Your task to perform on an android device: Search for "rayovac triple a" on walmart, select the first entry, and add it to the cart. Image 0: 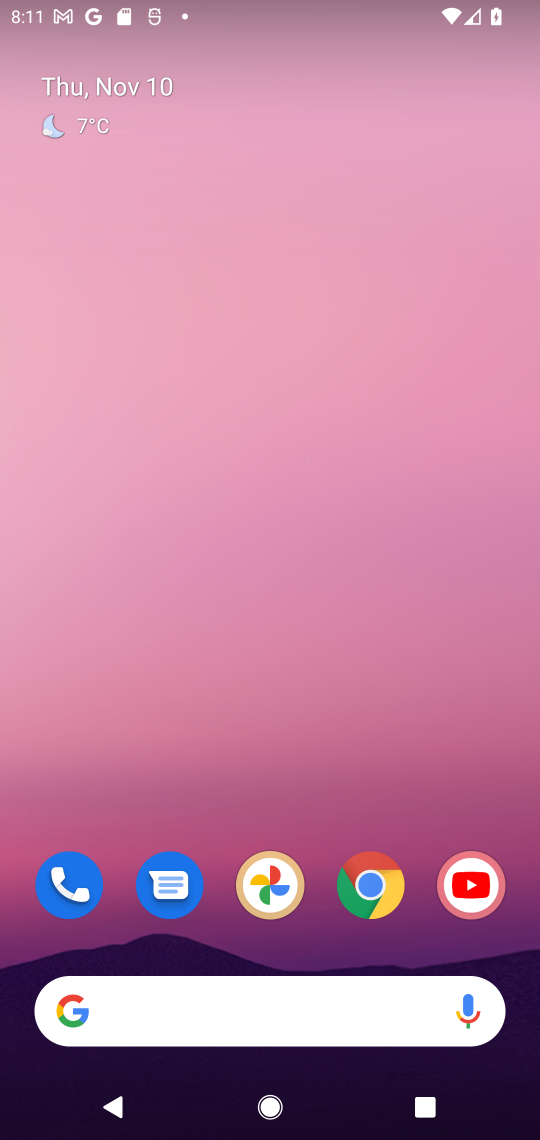
Step 0: click (386, 882)
Your task to perform on an android device: Search for "rayovac triple a" on walmart, select the first entry, and add it to the cart. Image 1: 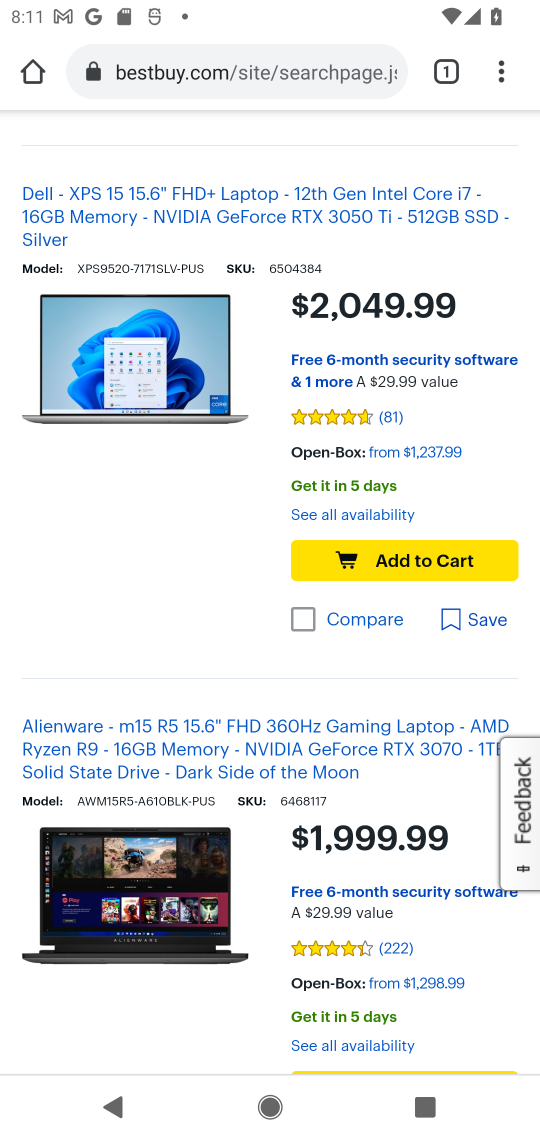
Step 1: click (257, 60)
Your task to perform on an android device: Search for "rayovac triple a" on walmart, select the first entry, and add it to the cart. Image 2: 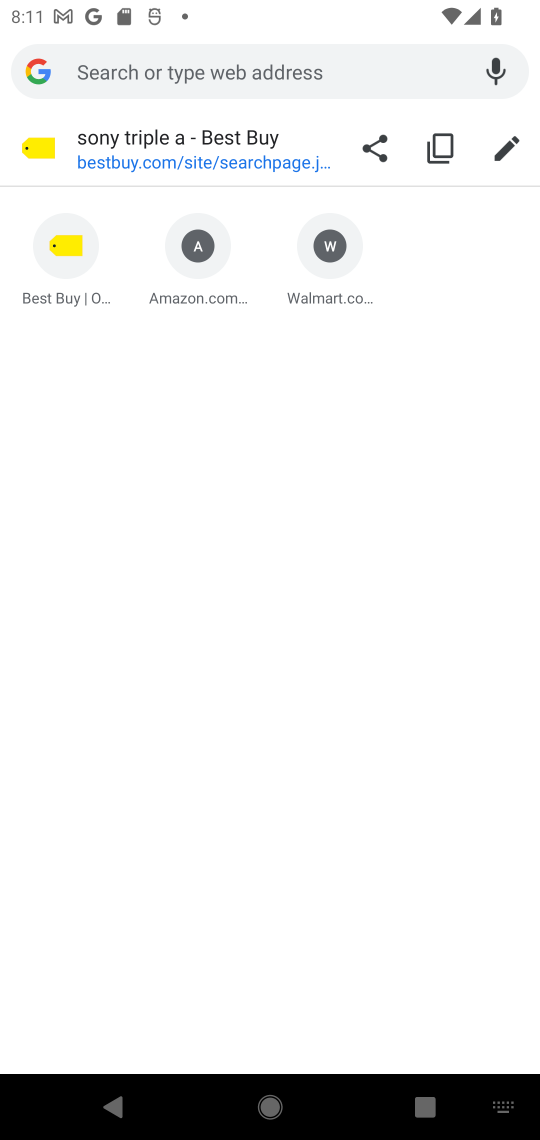
Step 2: type "walmart"
Your task to perform on an android device: Search for "rayovac triple a" on walmart, select the first entry, and add it to the cart. Image 3: 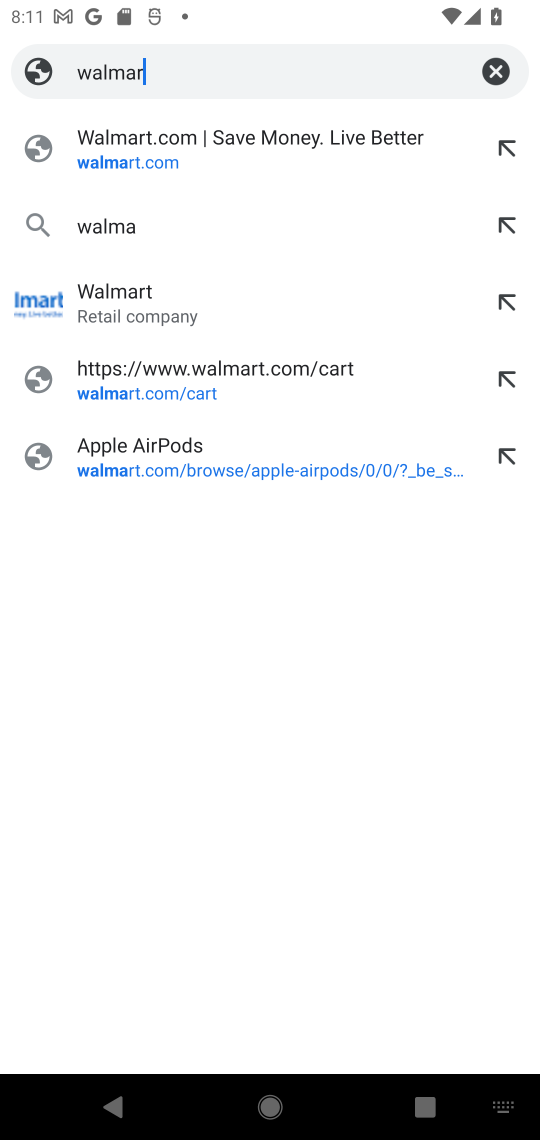
Step 3: press enter
Your task to perform on an android device: Search for "rayovac triple a" on walmart, select the first entry, and add it to the cart. Image 4: 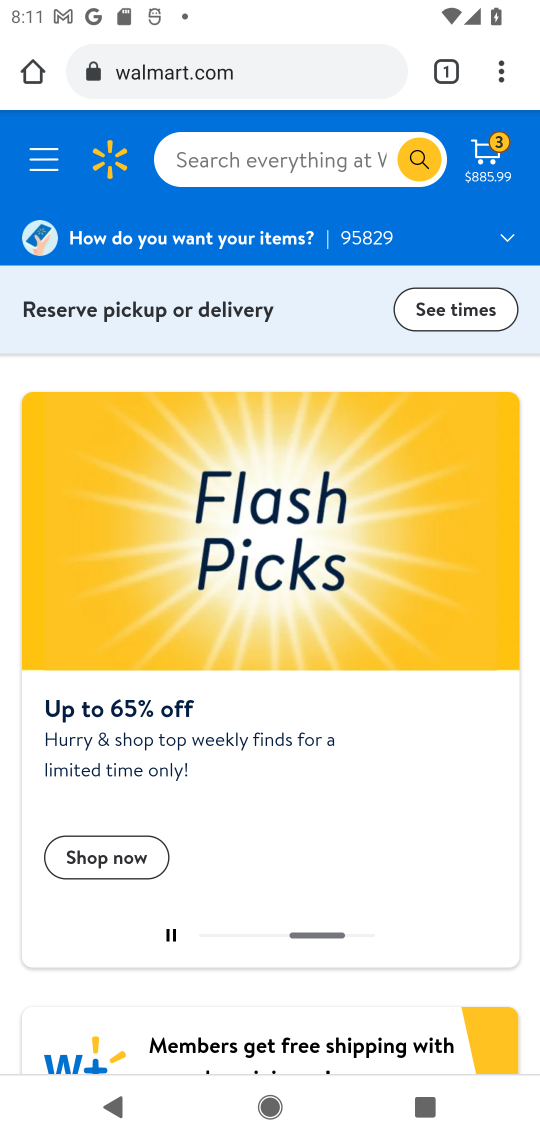
Step 4: click (267, 140)
Your task to perform on an android device: Search for "rayovac triple a" on walmart, select the first entry, and add it to the cart. Image 5: 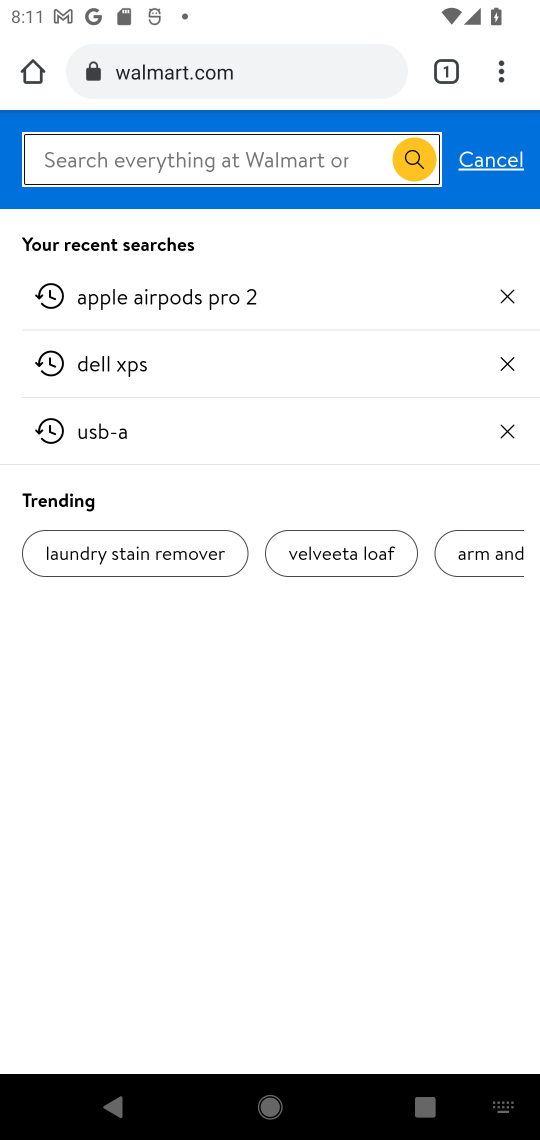
Step 5: type "rayovac triple a"
Your task to perform on an android device: Search for "rayovac triple a" on walmart, select the first entry, and add it to the cart. Image 6: 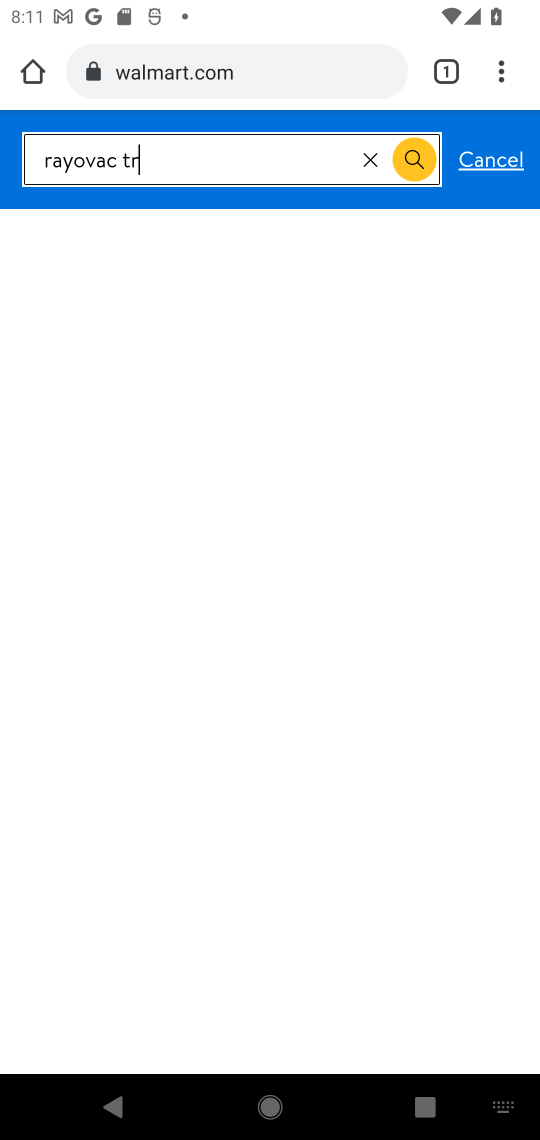
Step 6: press enter
Your task to perform on an android device: Search for "rayovac triple a" on walmart, select the first entry, and add it to the cart. Image 7: 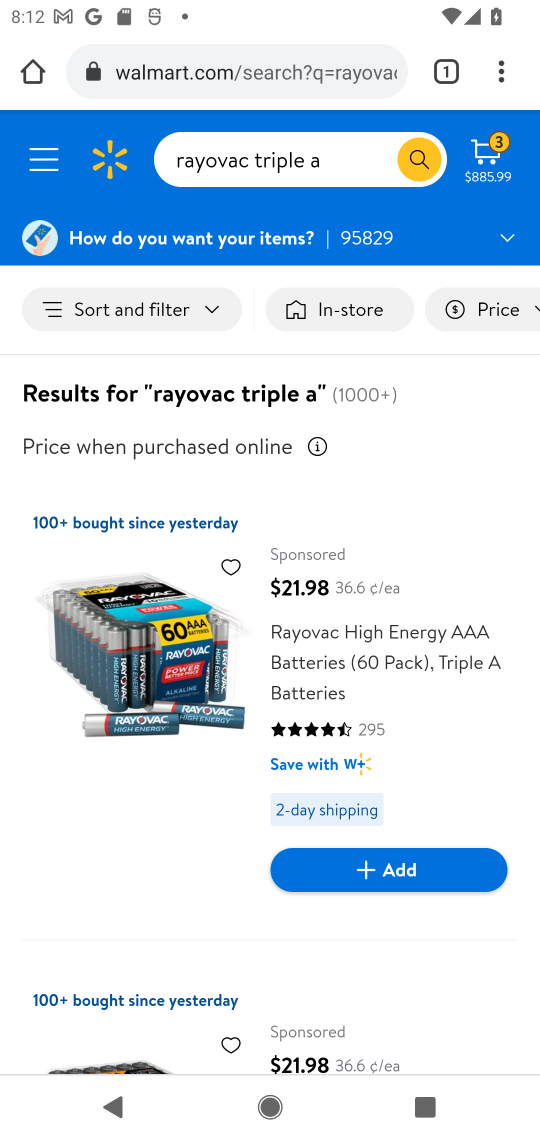
Step 7: click (126, 684)
Your task to perform on an android device: Search for "rayovac triple a" on walmart, select the first entry, and add it to the cart. Image 8: 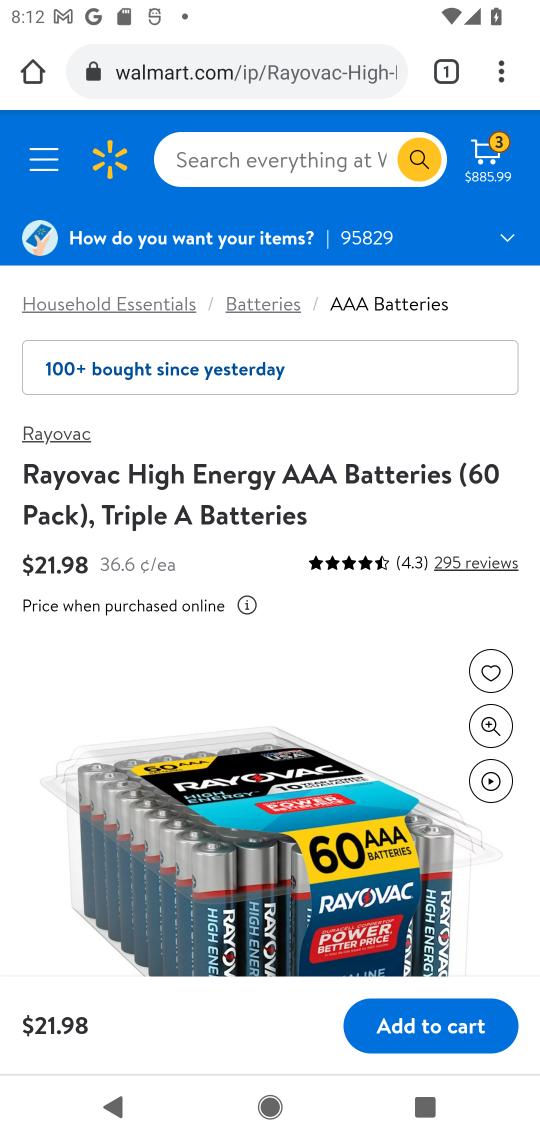
Step 8: click (433, 1024)
Your task to perform on an android device: Search for "rayovac triple a" on walmart, select the first entry, and add it to the cart. Image 9: 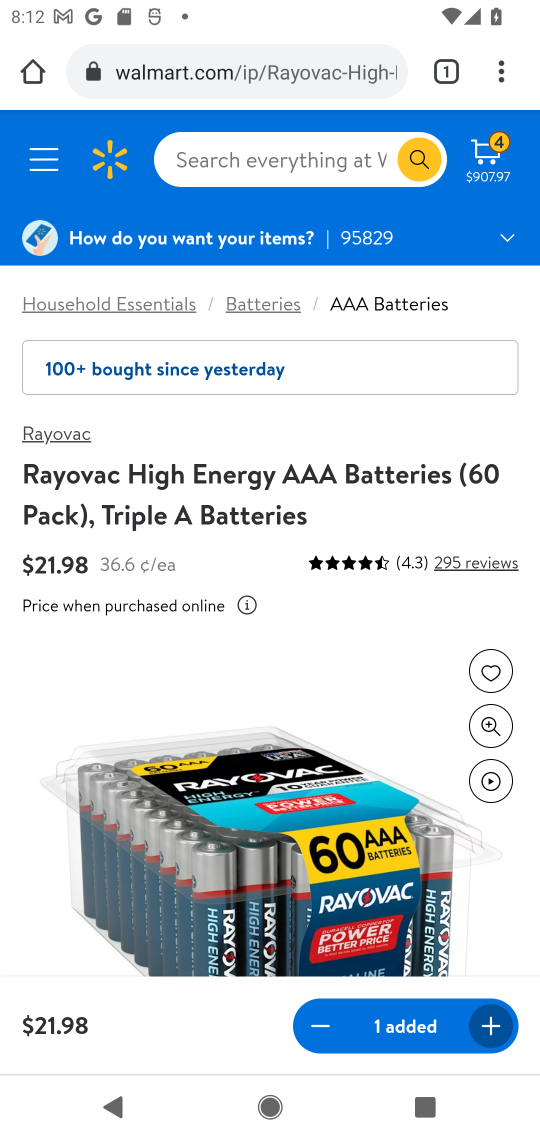
Step 9: task complete